Your task to perform on an android device: toggle sleep mode Image 0: 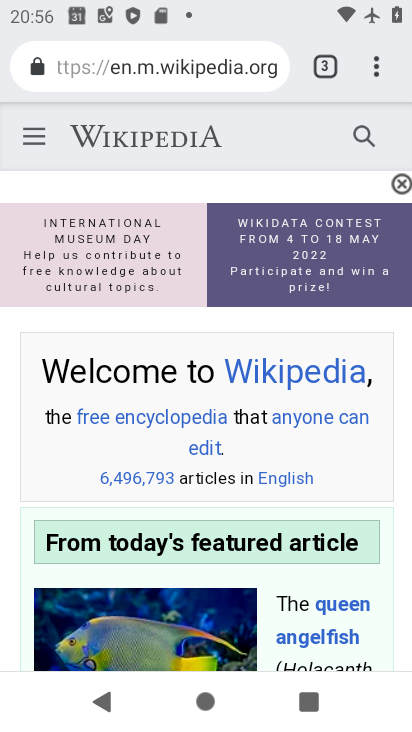
Step 0: press home button
Your task to perform on an android device: toggle sleep mode Image 1: 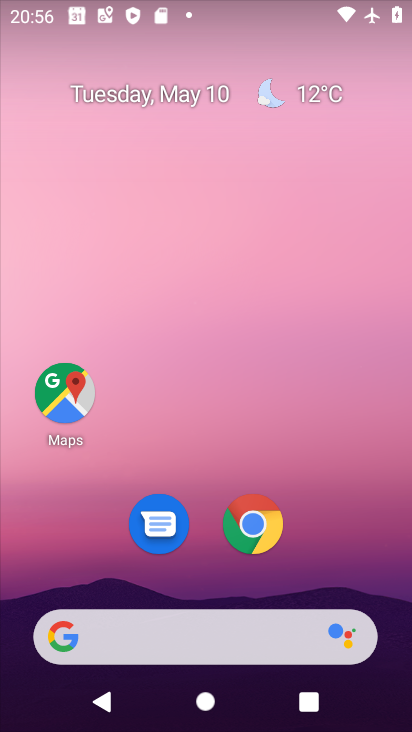
Step 1: drag from (313, 527) to (275, 94)
Your task to perform on an android device: toggle sleep mode Image 2: 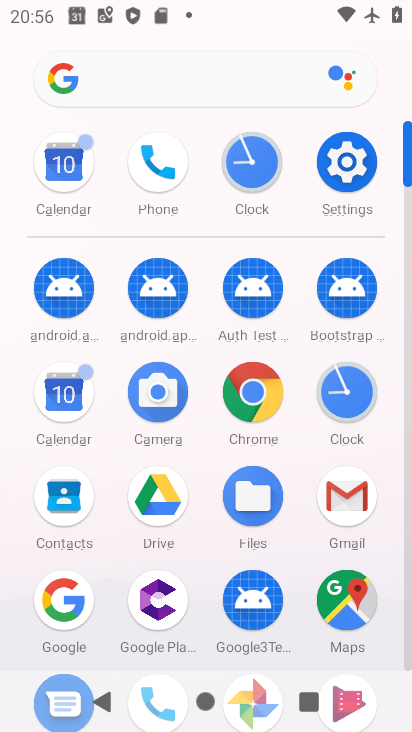
Step 2: click (343, 147)
Your task to perform on an android device: toggle sleep mode Image 3: 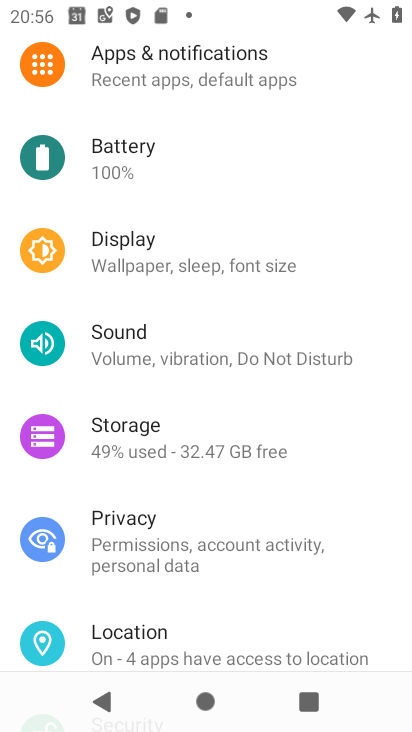
Step 3: click (219, 254)
Your task to perform on an android device: toggle sleep mode Image 4: 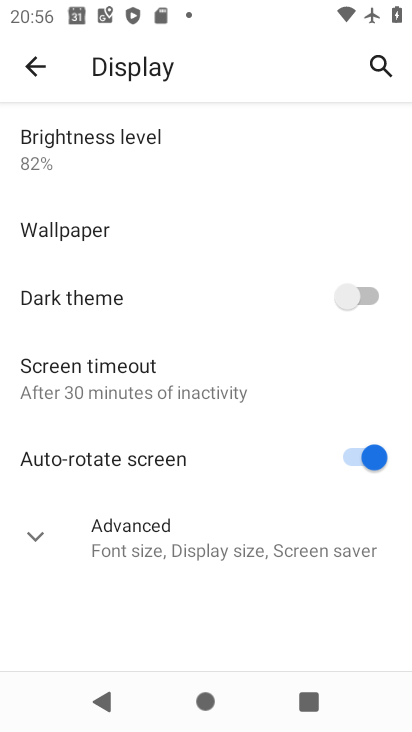
Step 4: click (38, 528)
Your task to perform on an android device: toggle sleep mode Image 5: 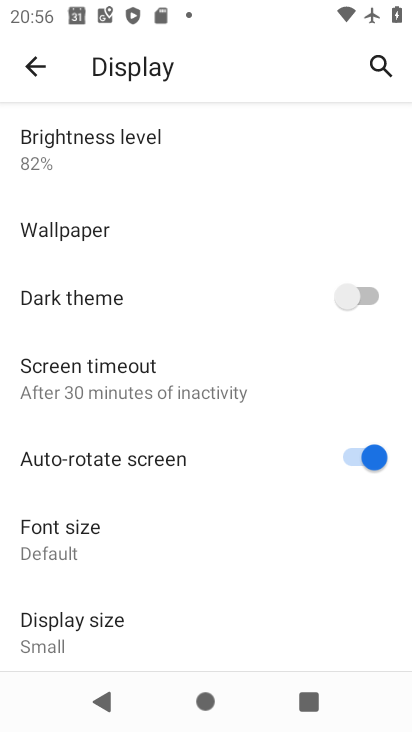
Step 5: task complete